Your task to perform on an android device: turn on the 24-hour format for clock Image 0: 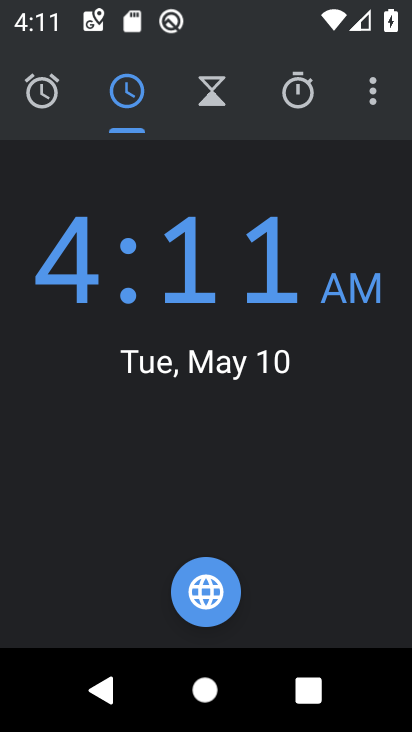
Step 0: press home button
Your task to perform on an android device: turn on the 24-hour format for clock Image 1: 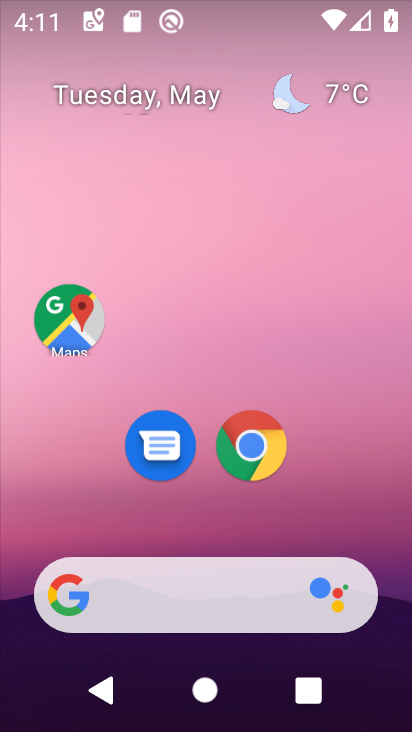
Step 1: drag from (260, 519) to (254, 9)
Your task to perform on an android device: turn on the 24-hour format for clock Image 2: 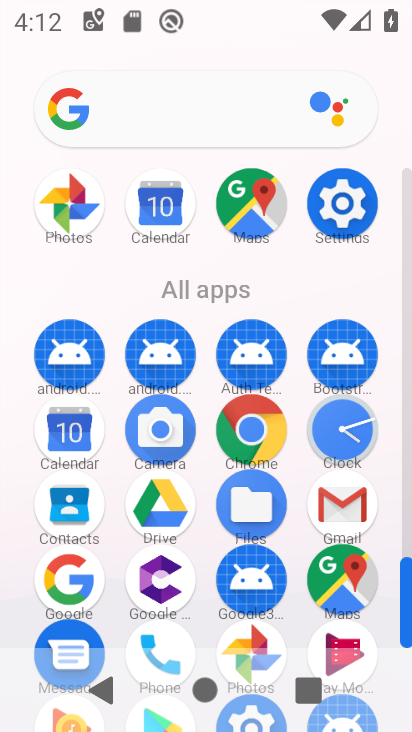
Step 2: click (336, 216)
Your task to perform on an android device: turn on the 24-hour format for clock Image 3: 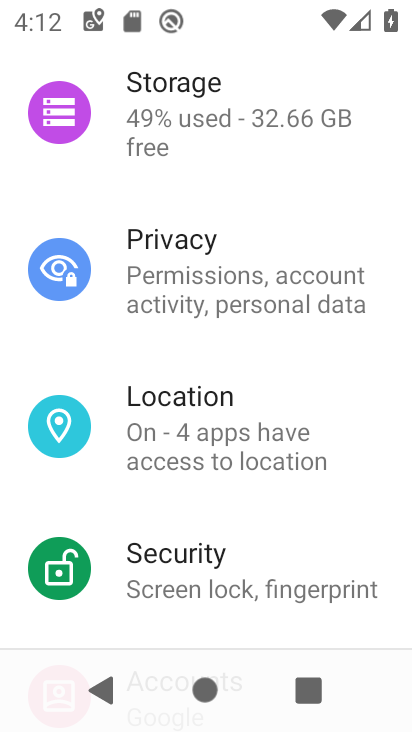
Step 3: drag from (219, 544) to (259, 267)
Your task to perform on an android device: turn on the 24-hour format for clock Image 4: 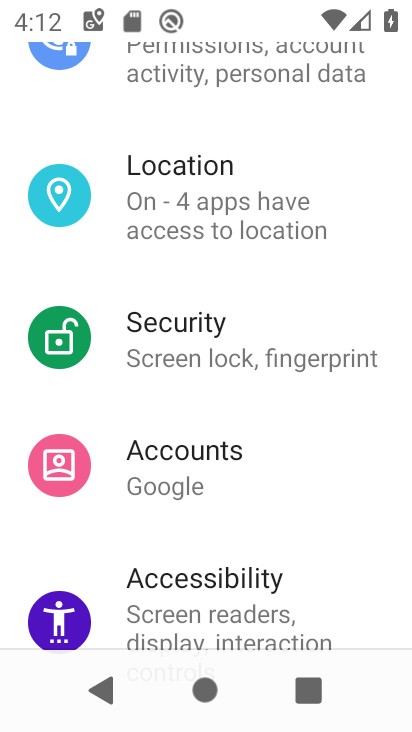
Step 4: drag from (246, 556) to (278, 154)
Your task to perform on an android device: turn on the 24-hour format for clock Image 5: 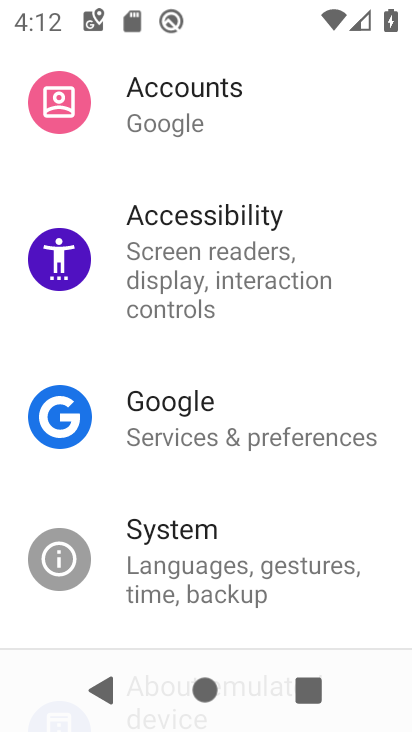
Step 5: click (225, 545)
Your task to perform on an android device: turn on the 24-hour format for clock Image 6: 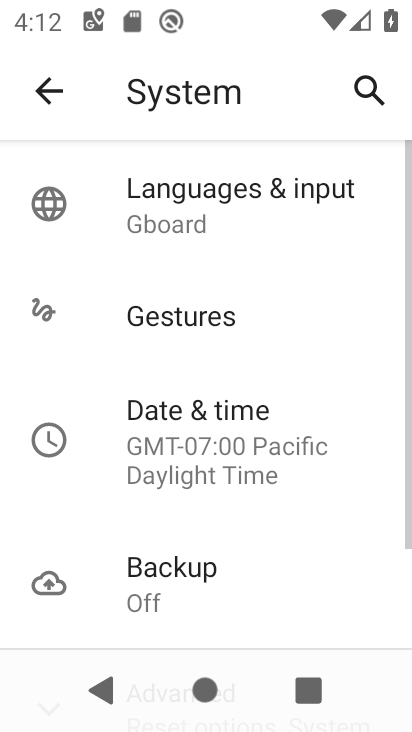
Step 6: click (192, 444)
Your task to perform on an android device: turn on the 24-hour format for clock Image 7: 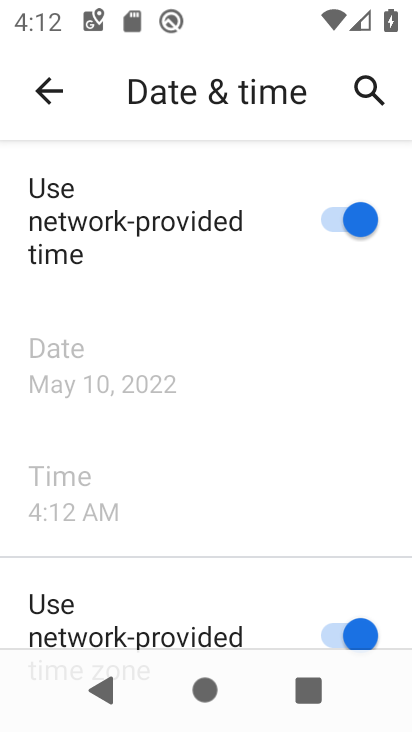
Step 7: drag from (231, 515) to (283, 141)
Your task to perform on an android device: turn on the 24-hour format for clock Image 8: 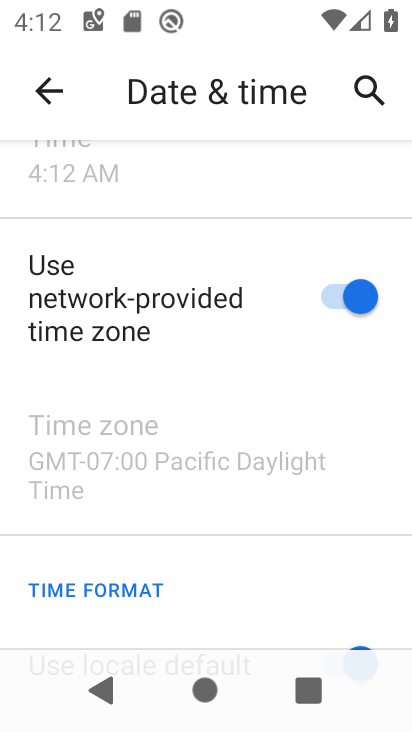
Step 8: drag from (291, 507) to (345, 115)
Your task to perform on an android device: turn on the 24-hour format for clock Image 9: 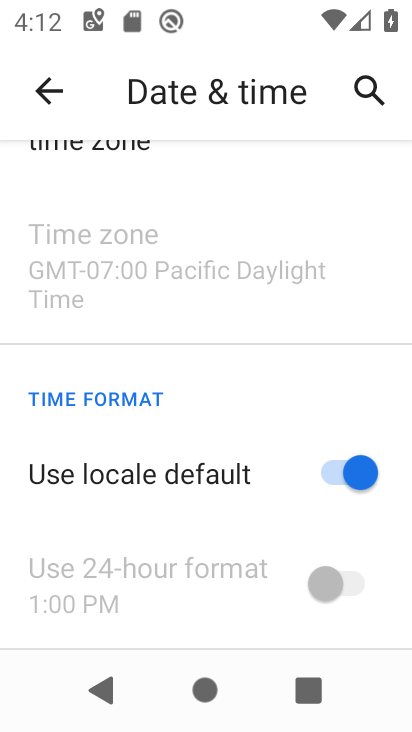
Step 9: click (324, 469)
Your task to perform on an android device: turn on the 24-hour format for clock Image 10: 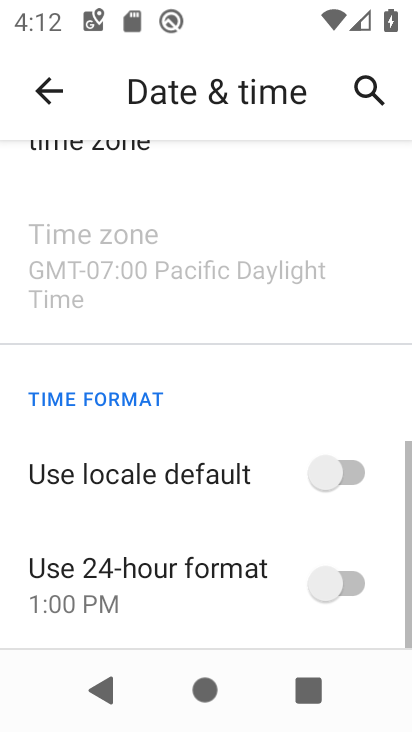
Step 10: click (352, 586)
Your task to perform on an android device: turn on the 24-hour format for clock Image 11: 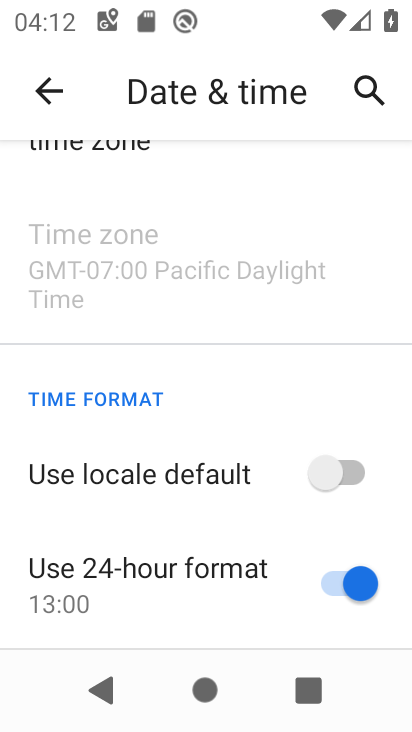
Step 11: task complete